Your task to perform on an android device: Open network settings Image 0: 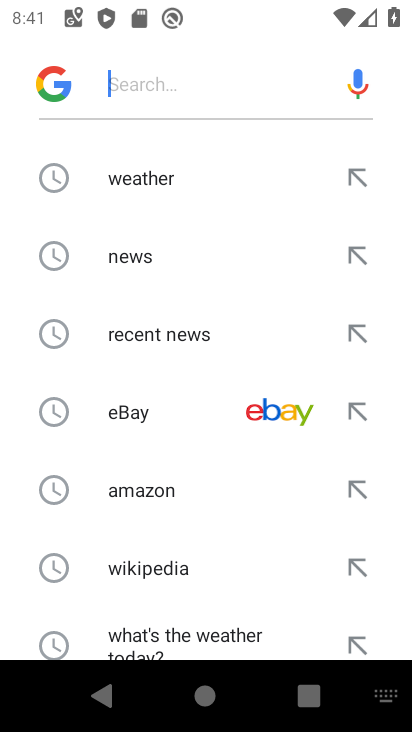
Step 0: press home button
Your task to perform on an android device: Open network settings Image 1: 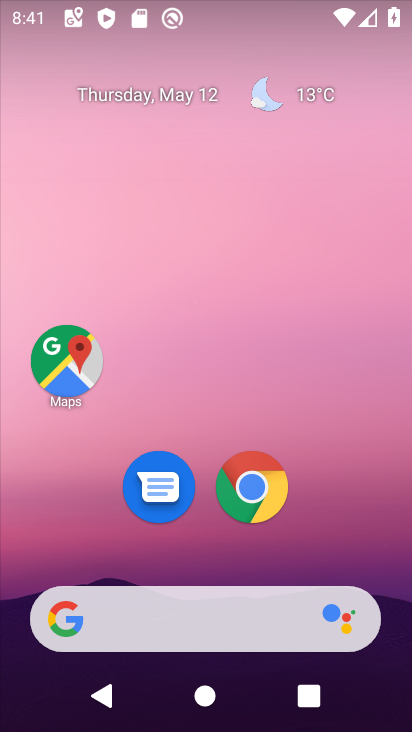
Step 1: drag from (352, 566) to (332, 11)
Your task to perform on an android device: Open network settings Image 2: 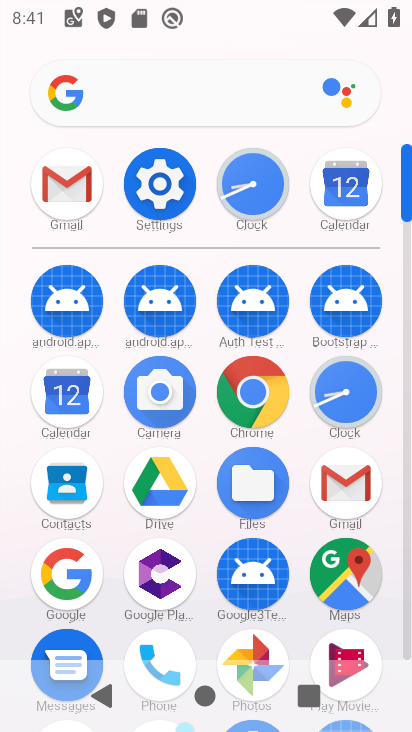
Step 2: click (168, 181)
Your task to perform on an android device: Open network settings Image 3: 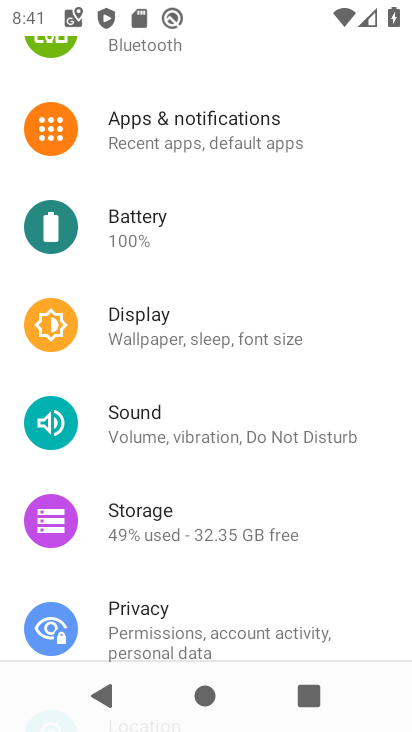
Step 3: drag from (317, 125) to (271, 557)
Your task to perform on an android device: Open network settings Image 4: 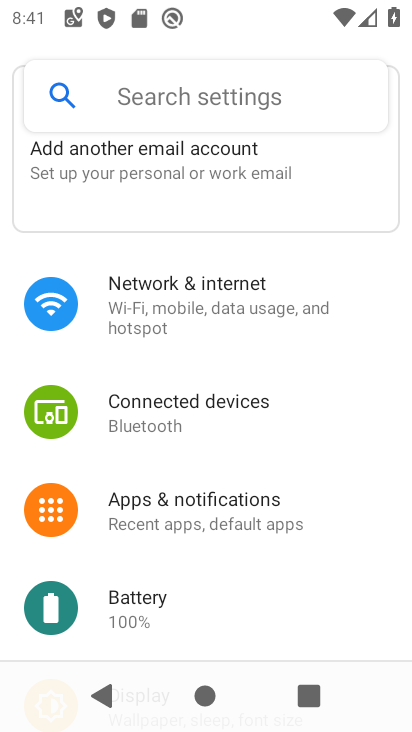
Step 4: click (167, 289)
Your task to perform on an android device: Open network settings Image 5: 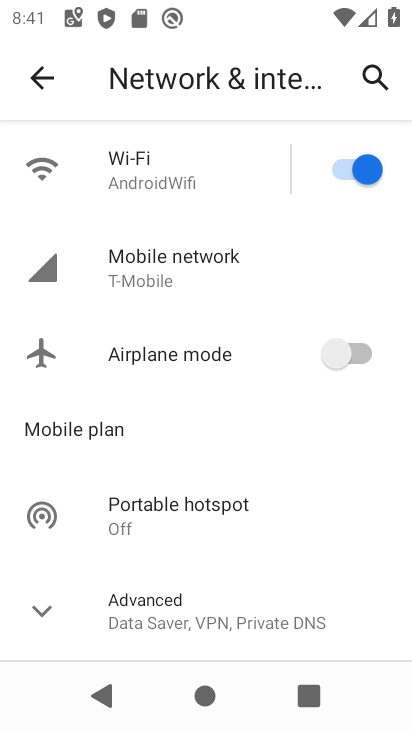
Step 5: click (160, 287)
Your task to perform on an android device: Open network settings Image 6: 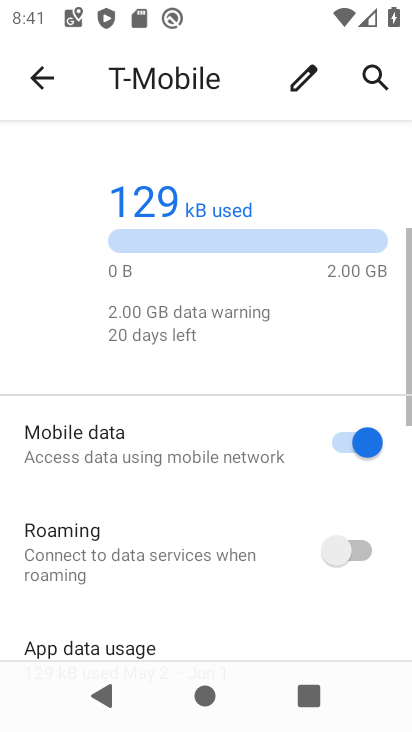
Step 6: drag from (131, 498) to (149, 95)
Your task to perform on an android device: Open network settings Image 7: 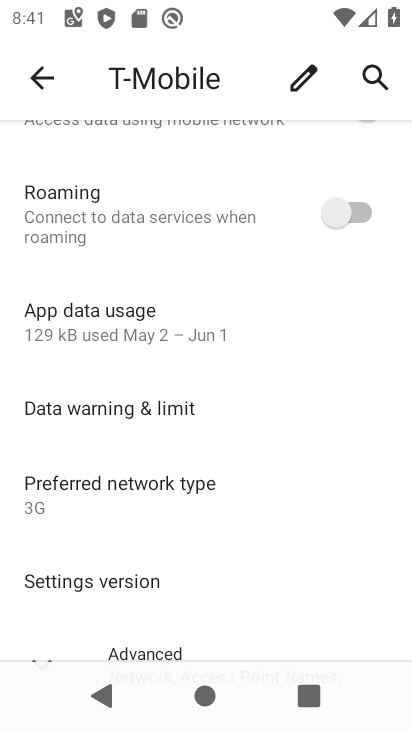
Step 7: drag from (87, 494) to (101, 157)
Your task to perform on an android device: Open network settings Image 8: 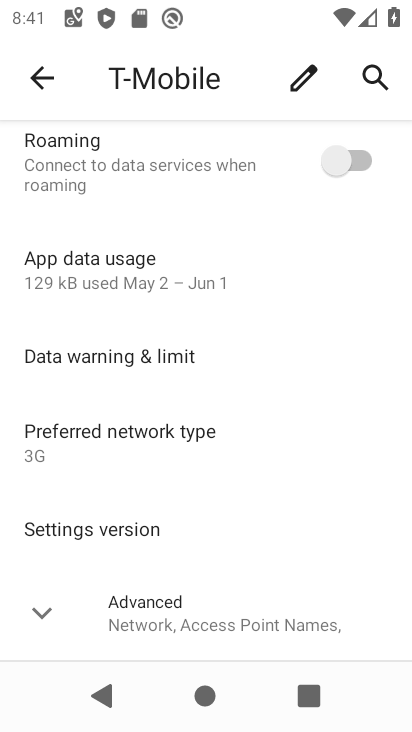
Step 8: click (46, 615)
Your task to perform on an android device: Open network settings Image 9: 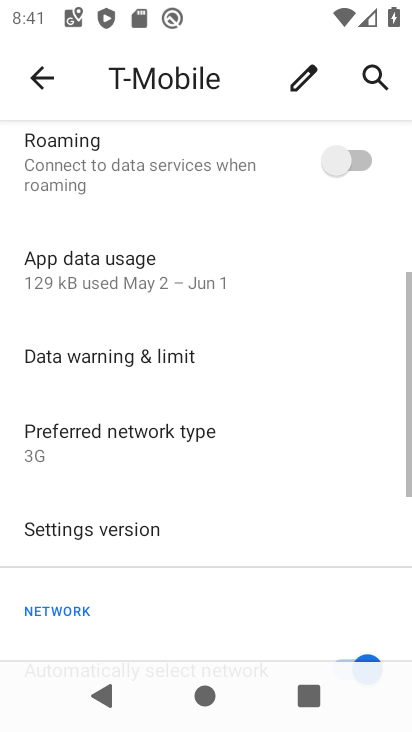
Step 9: task complete